Your task to perform on an android device: toggle location history Image 0: 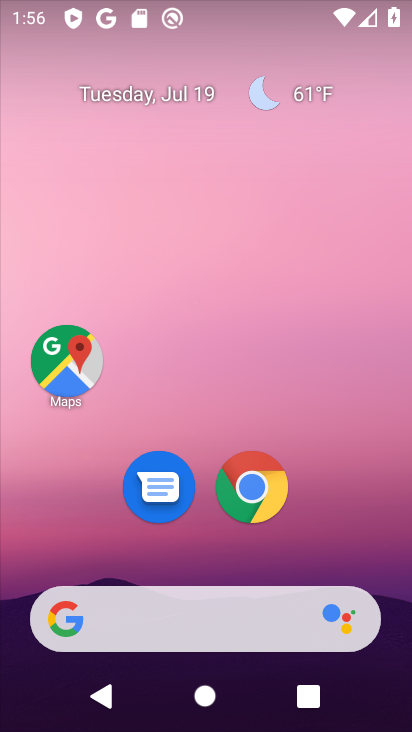
Step 0: drag from (149, 579) to (264, 36)
Your task to perform on an android device: toggle location history Image 1: 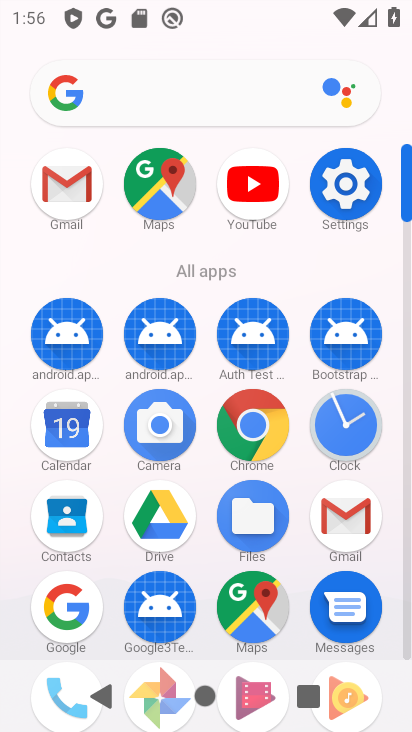
Step 1: click (355, 194)
Your task to perform on an android device: toggle location history Image 2: 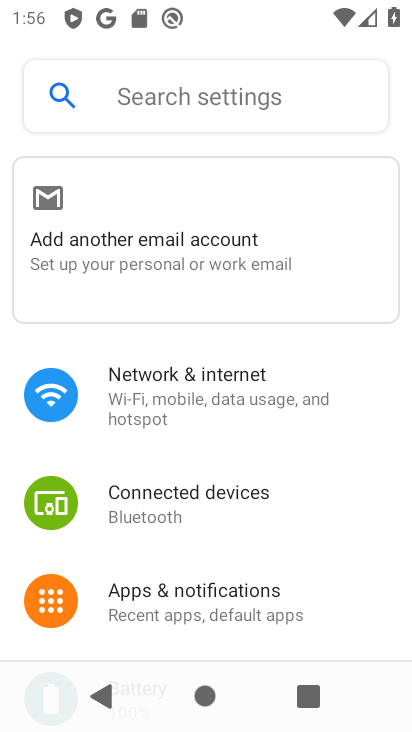
Step 2: drag from (203, 613) to (275, 30)
Your task to perform on an android device: toggle location history Image 3: 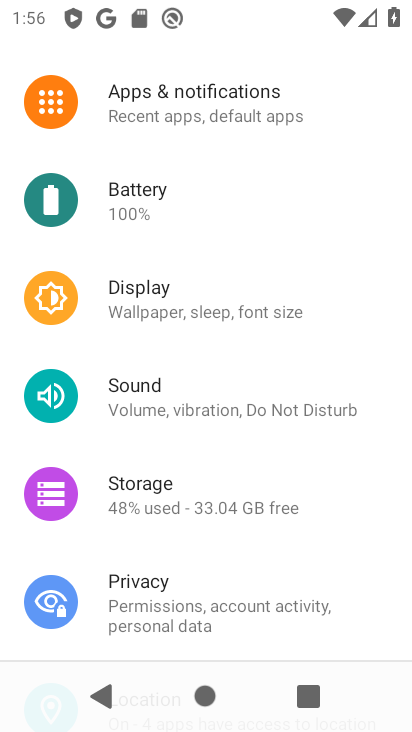
Step 3: drag from (147, 567) to (247, 25)
Your task to perform on an android device: toggle location history Image 4: 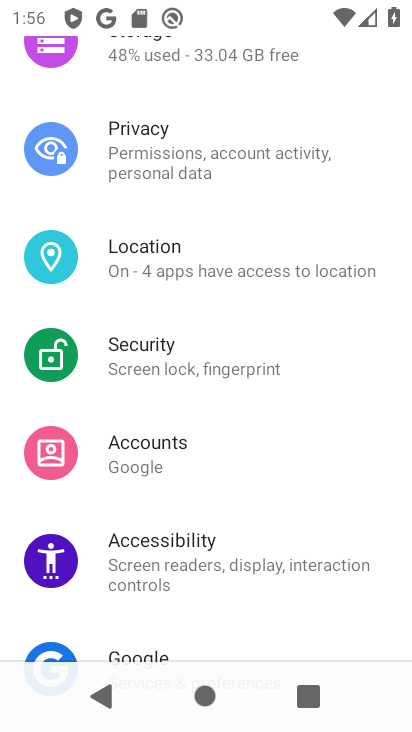
Step 4: click (192, 268)
Your task to perform on an android device: toggle location history Image 5: 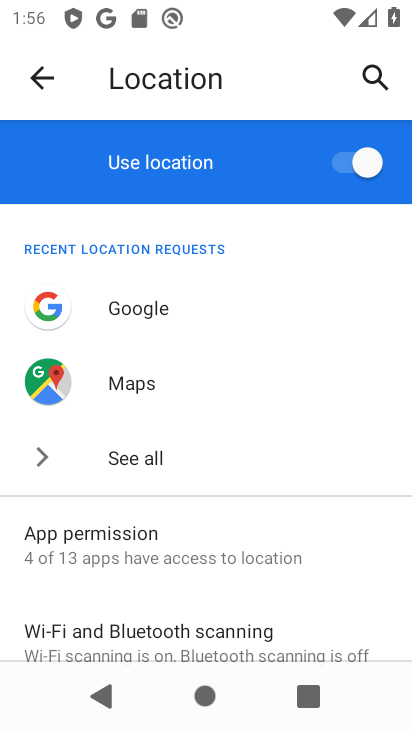
Step 5: drag from (162, 574) to (261, 119)
Your task to perform on an android device: toggle location history Image 6: 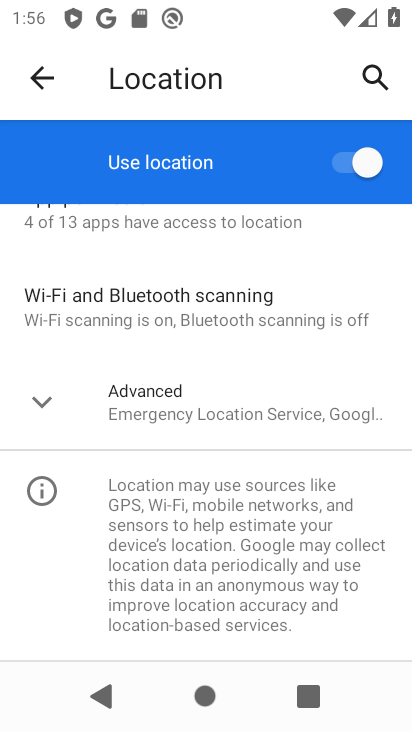
Step 6: click (143, 404)
Your task to perform on an android device: toggle location history Image 7: 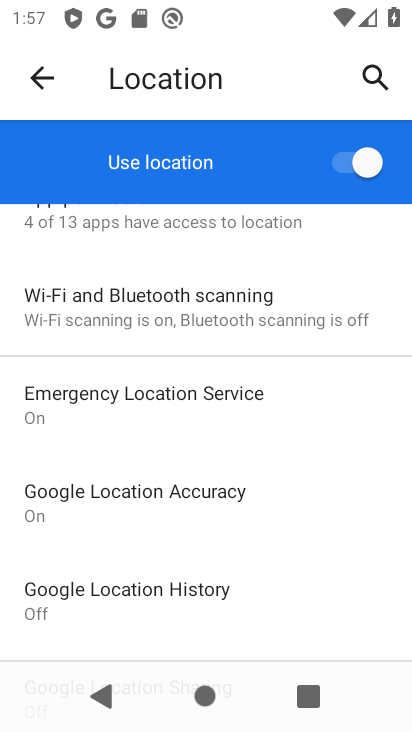
Step 7: click (131, 588)
Your task to perform on an android device: toggle location history Image 8: 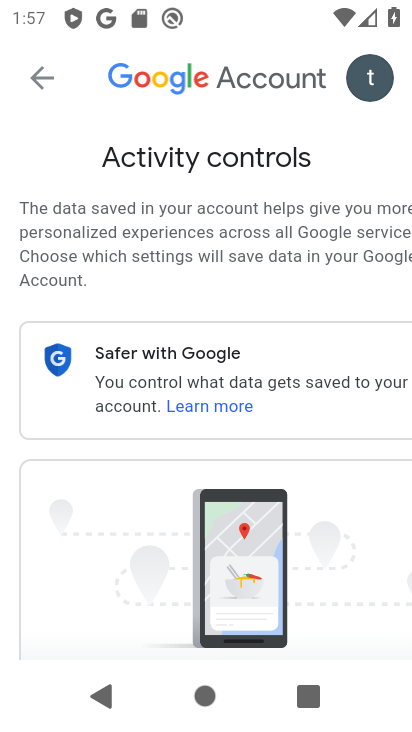
Step 8: drag from (174, 496) to (183, 55)
Your task to perform on an android device: toggle location history Image 9: 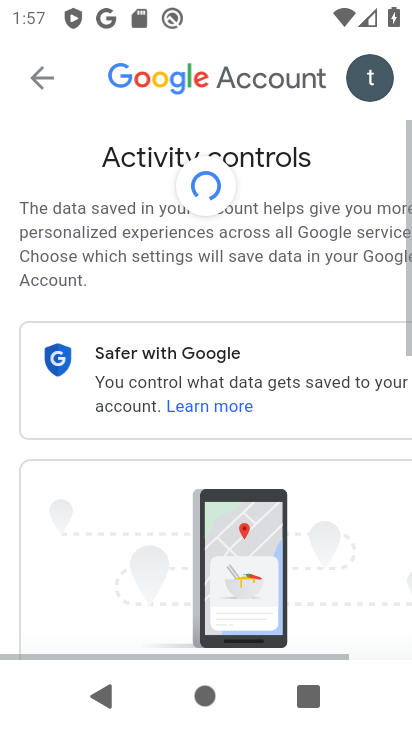
Step 9: click (368, 434)
Your task to perform on an android device: toggle location history Image 10: 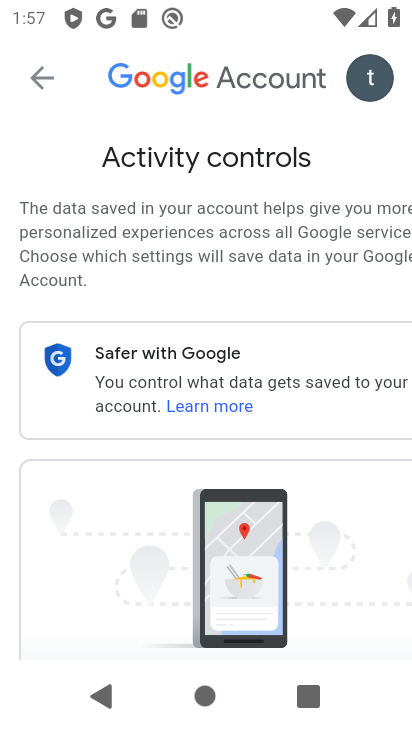
Step 10: drag from (212, 586) to (152, 132)
Your task to perform on an android device: toggle location history Image 11: 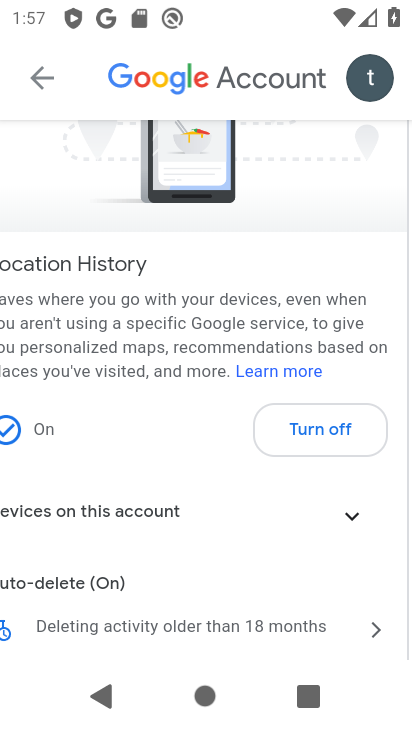
Step 11: click (312, 425)
Your task to perform on an android device: toggle location history Image 12: 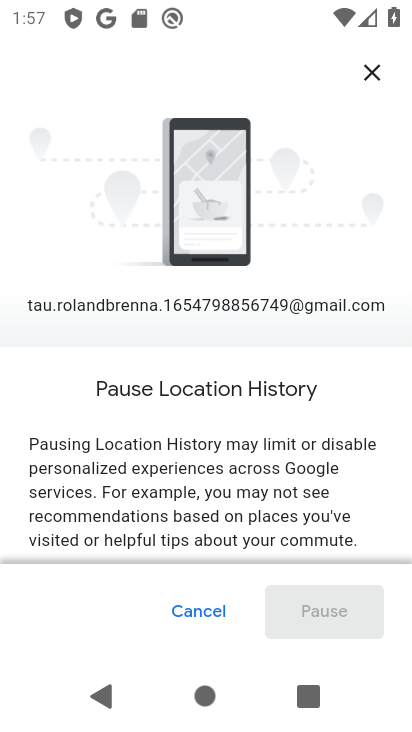
Step 12: drag from (206, 507) to (243, 53)
Your task to perform on an android device: toggle location history Image 13: 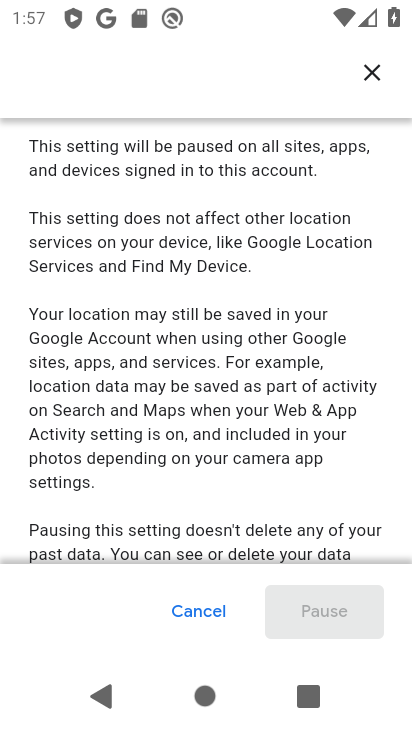
Step 13: drag from (301, 422) to (370, 14)
Your task to perform on an android device: toggle location history Image 14: 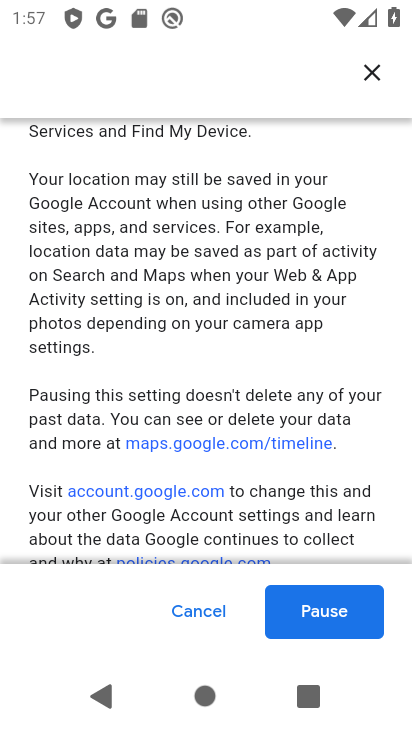
Step 14: click (334, 620)
Your task to perform on an android device: toggle location history Image 15: 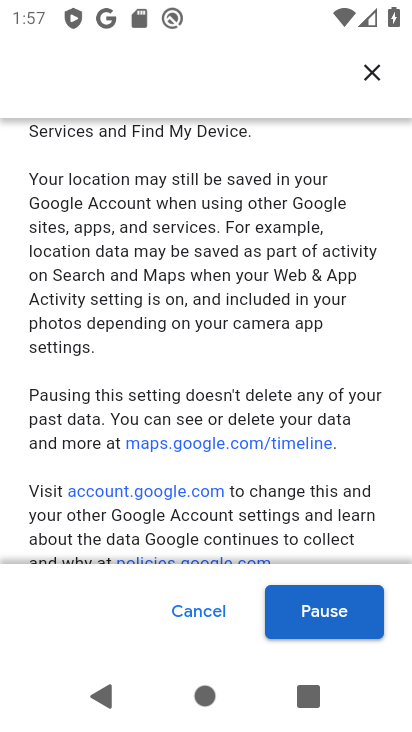
Step 15: drag from (187, 488) to (256, 74)
Your task to perform on an android device: toggle location history Image 16: 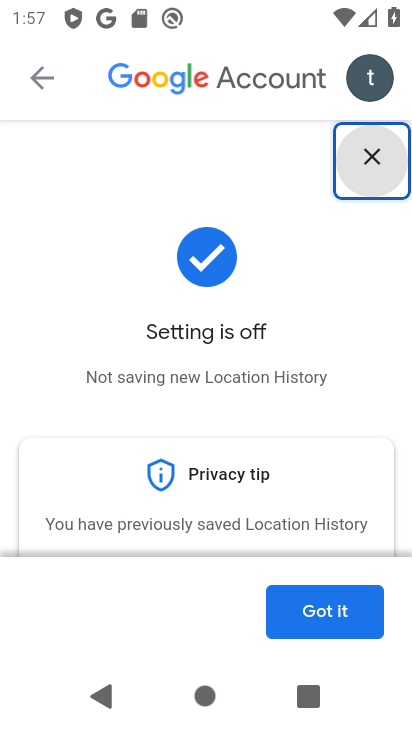
Step 16: click (323, 606)
Your task to perform on an android device: toggle location history Image 17: 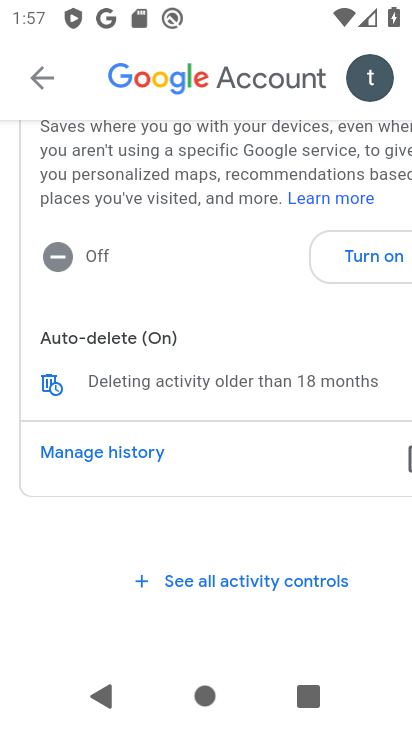
Step 17: task complete